Your task to perform on an android device: install app "Google Calendar" Image 0: 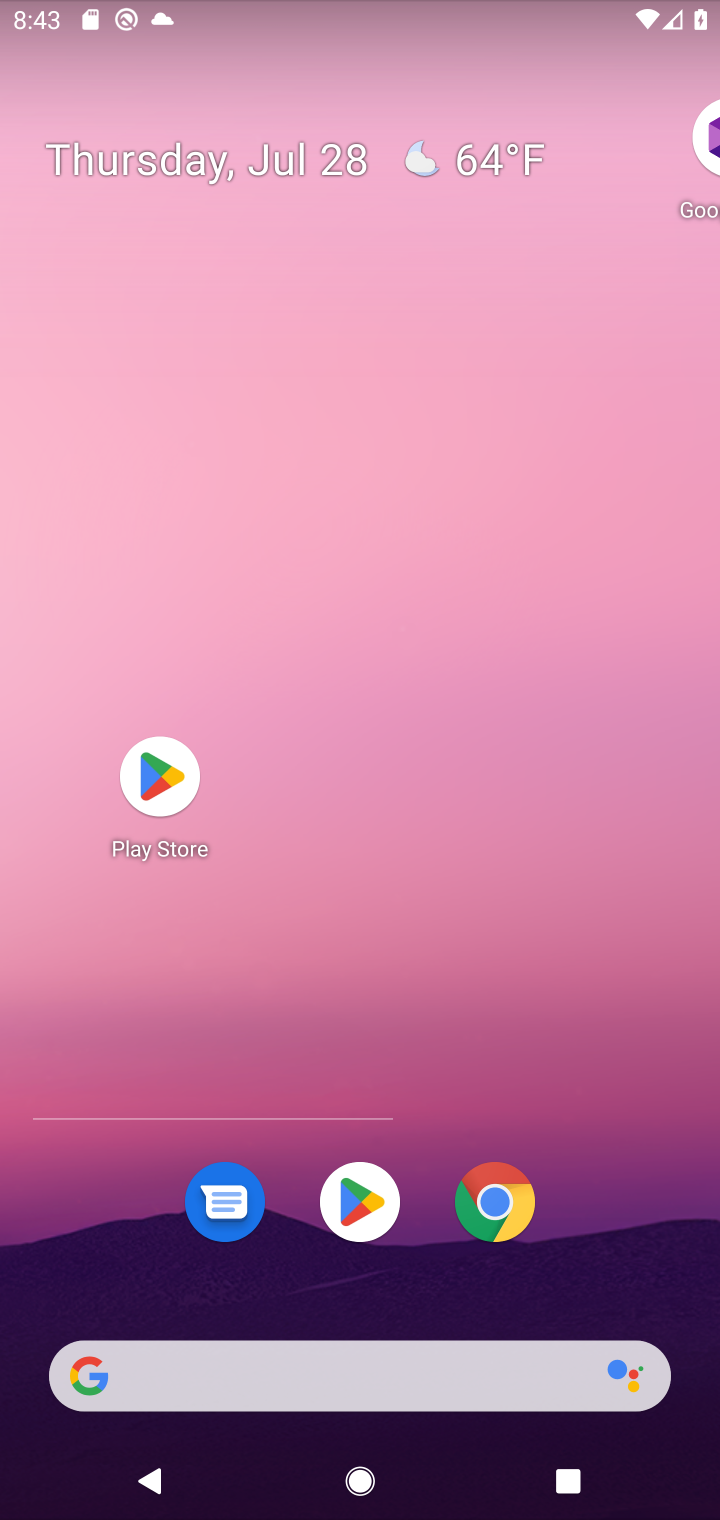
Step 0: press home button
Your task to perform on an android device: install app "Google Calendar" Image 1: 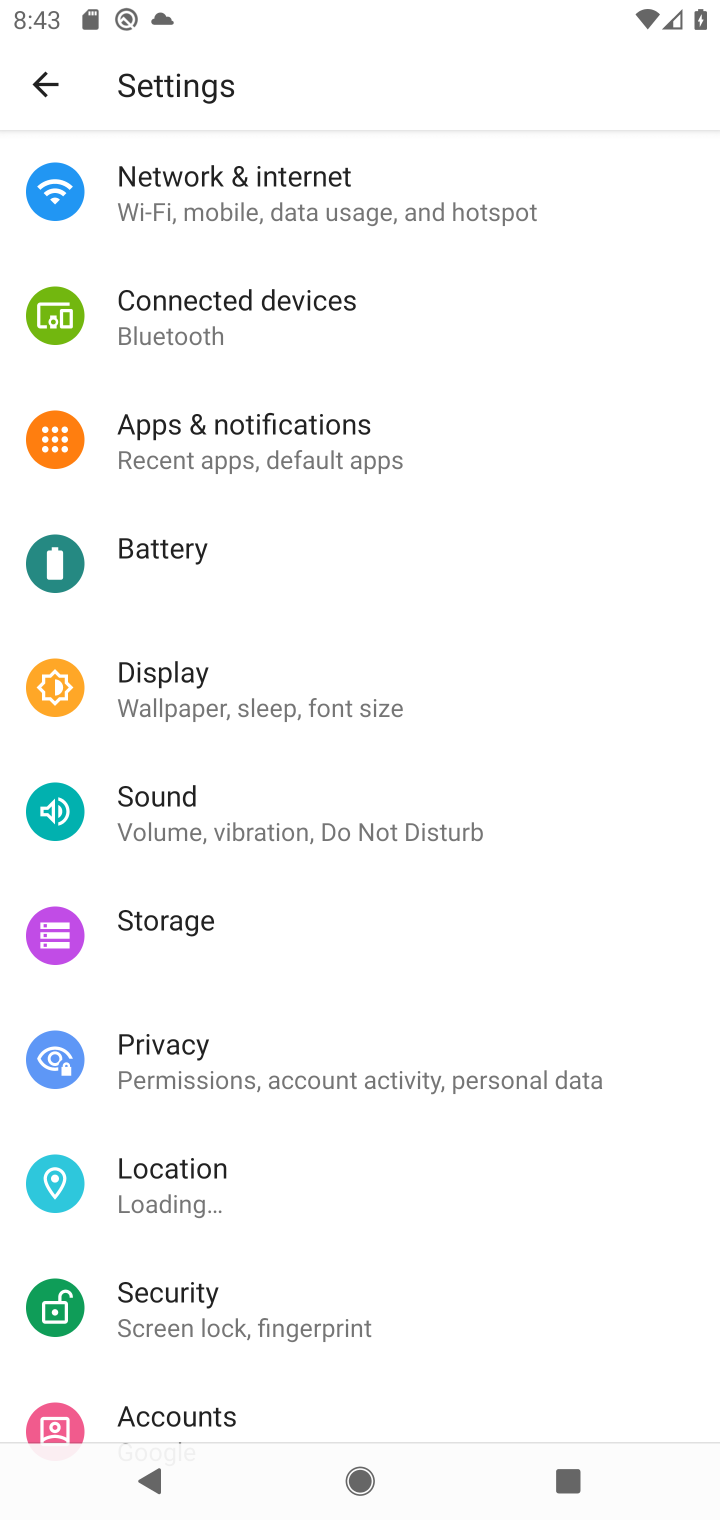
Step 1: click (357, 1198)
Your task to perform on an android device: install app "Google Calendar" Image 2: 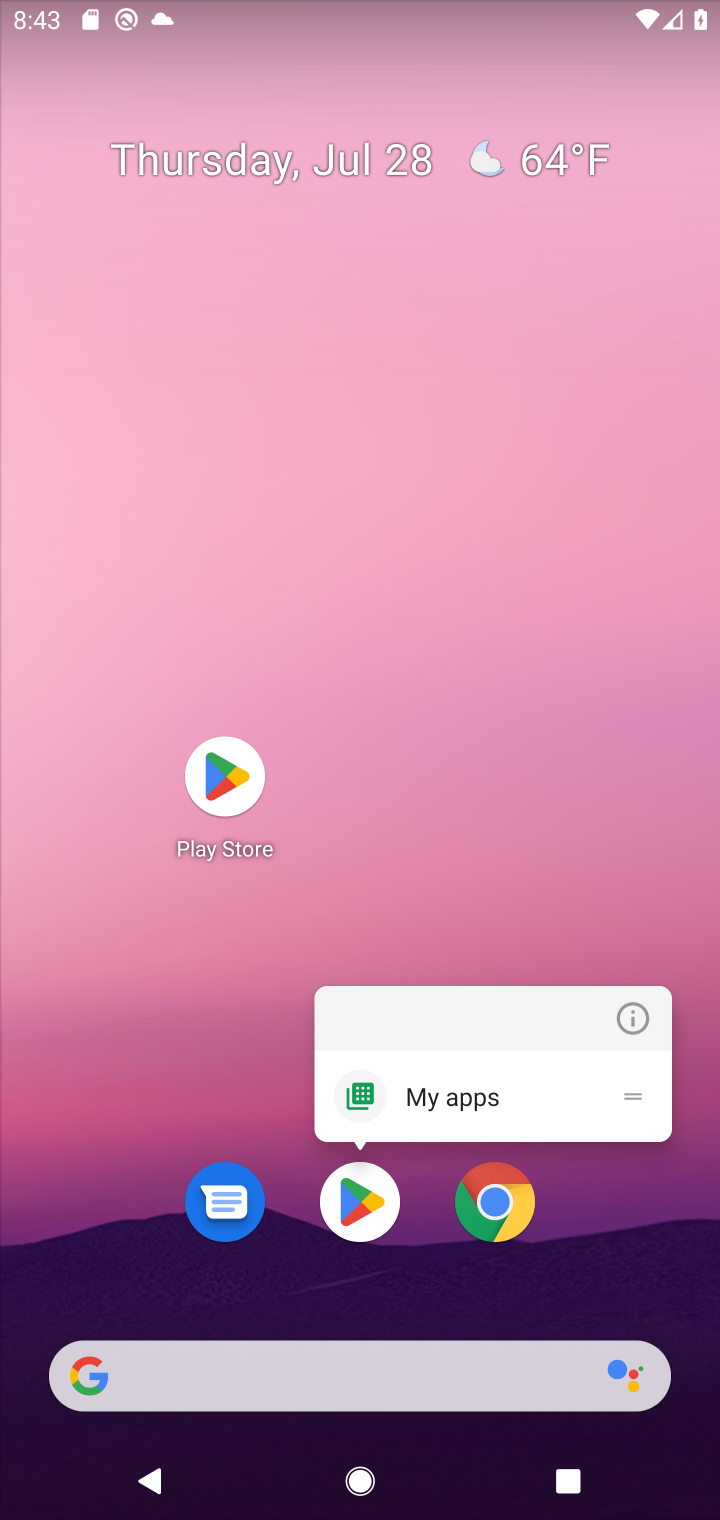
Step 2: click (359, 1222)
Your task to perform on an android device: install app "Google Calendar" Image 3: 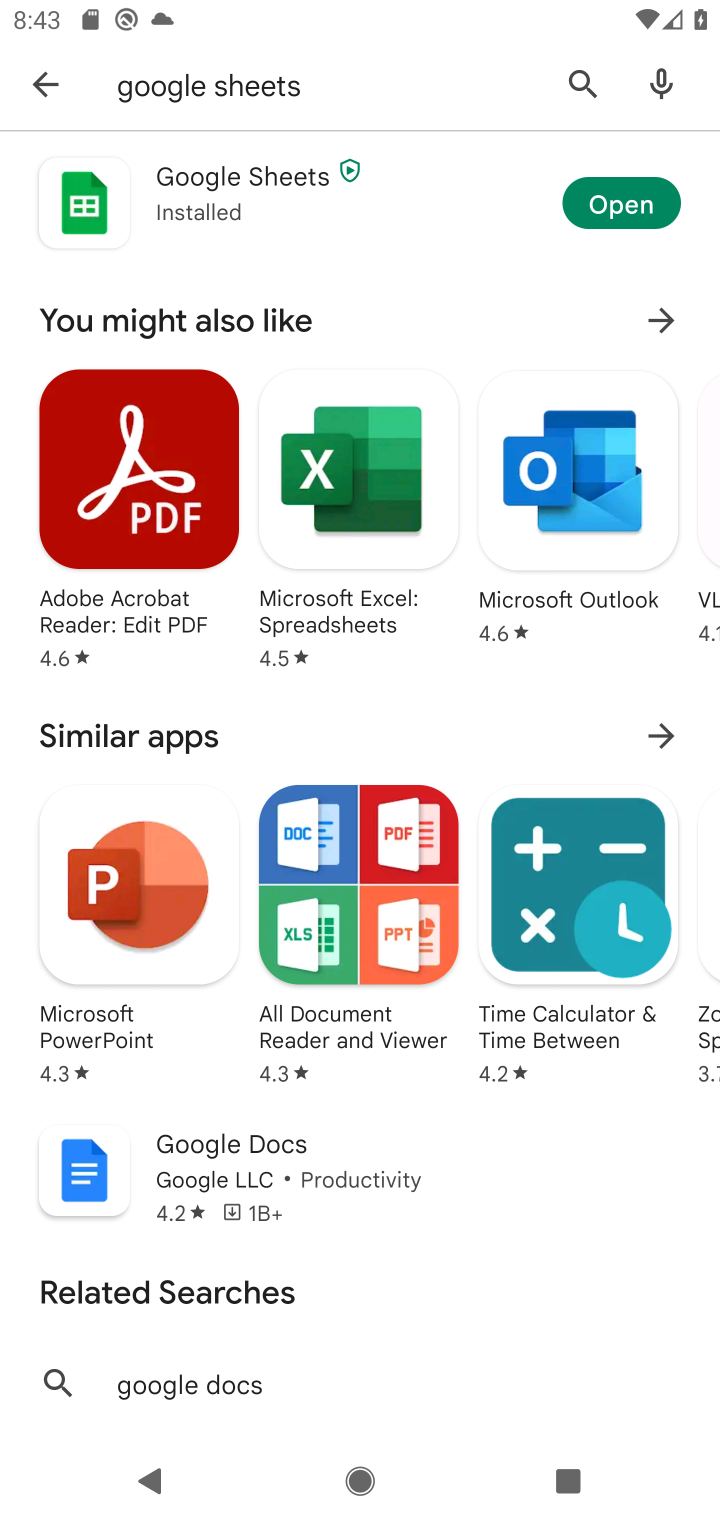
Step 3: click (574, 72)
Your task to perform on an android device: install app "Google Calendar" Image 4: 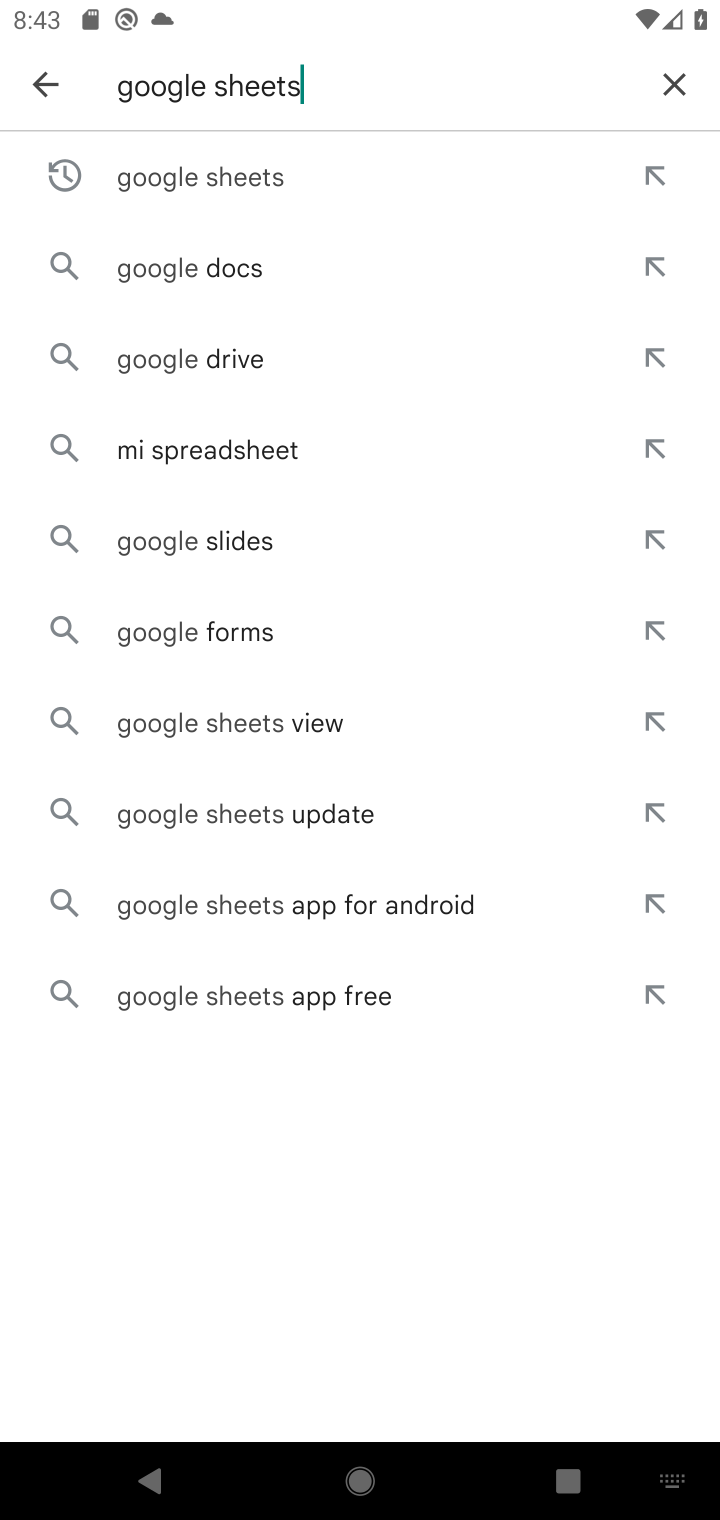
Step 4: click (676, 84)
Your task to perform on an android device: install app "Google Calendar" Image 5: 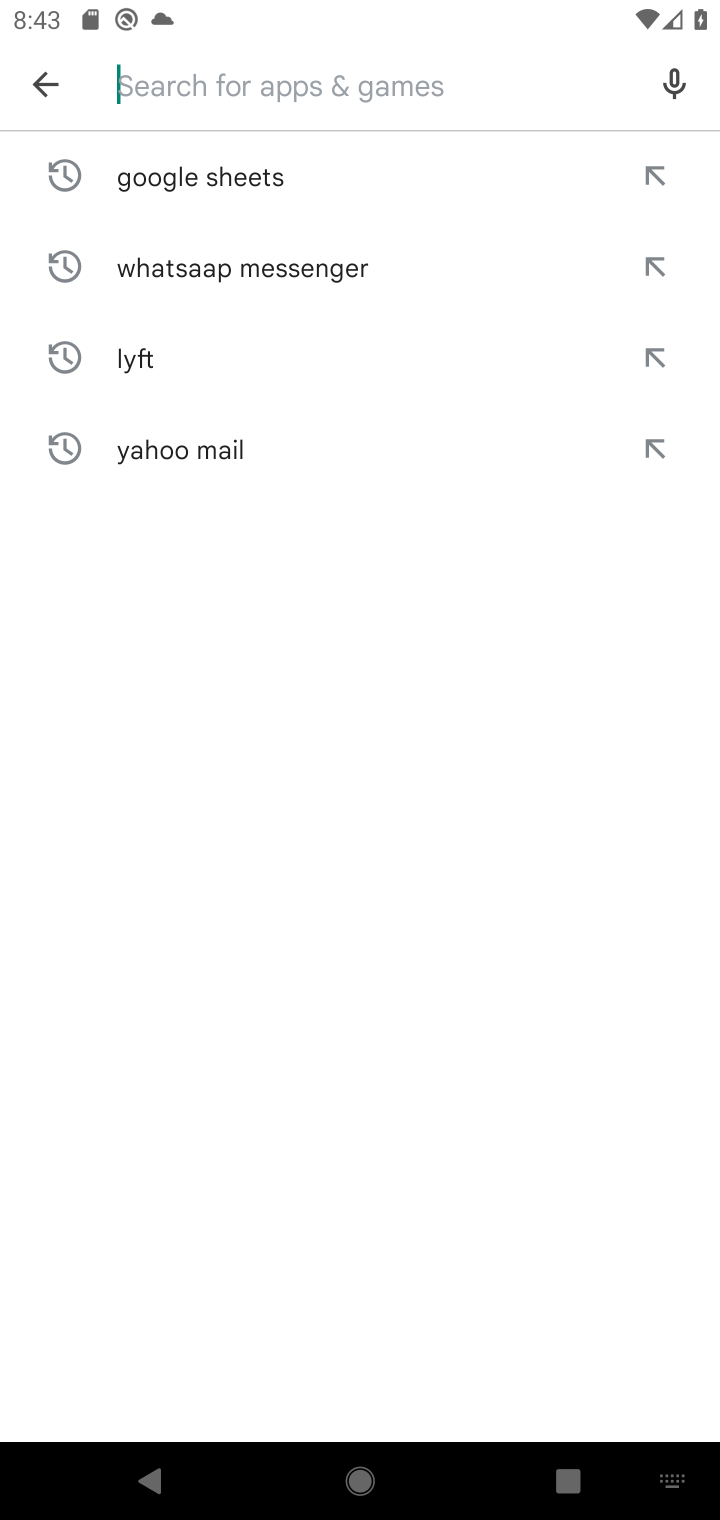
Step 5: type "google calendar"
Your task to perform on an android device: install app "Google Calendar" Image 6: 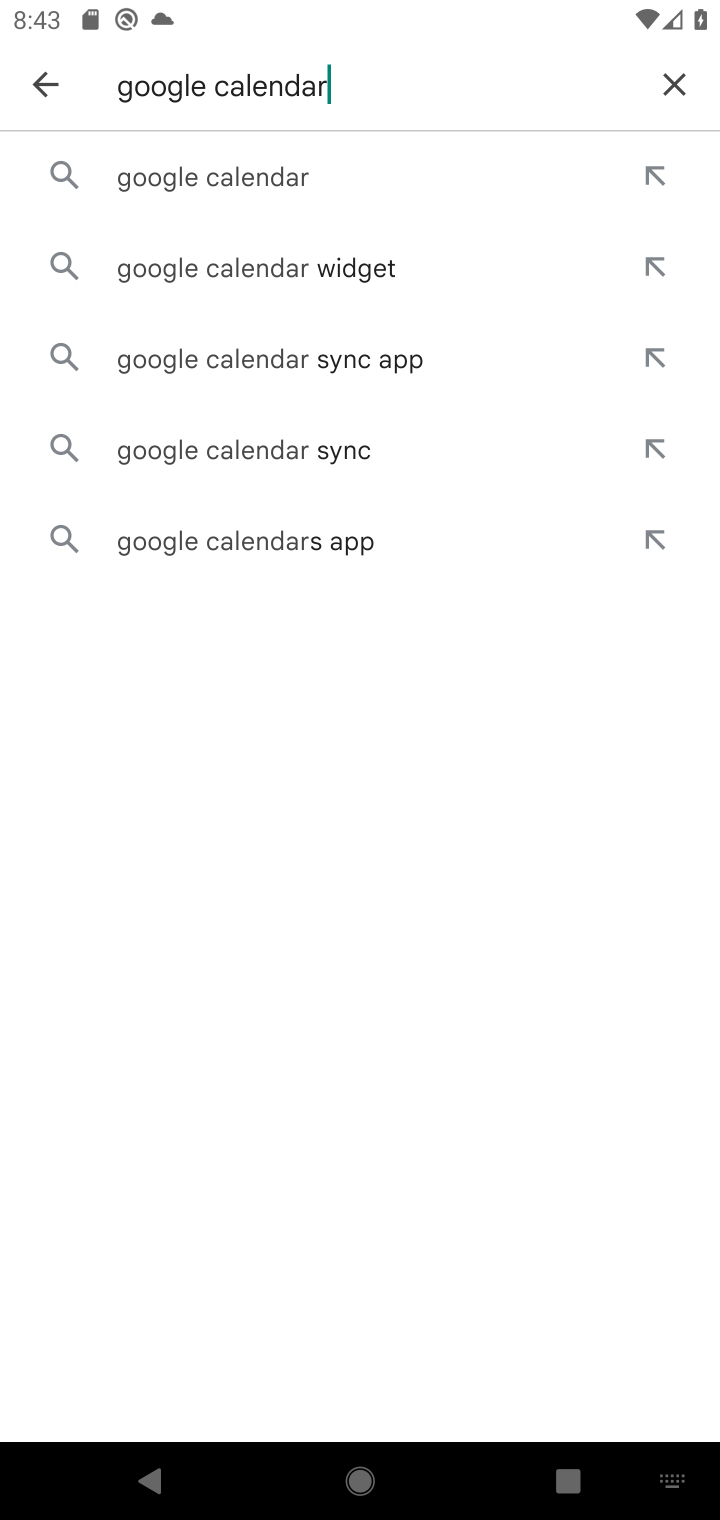
Step 6: click (258, 181)
Your task to perform on an android device: install app "Google Calendar" Image 7: 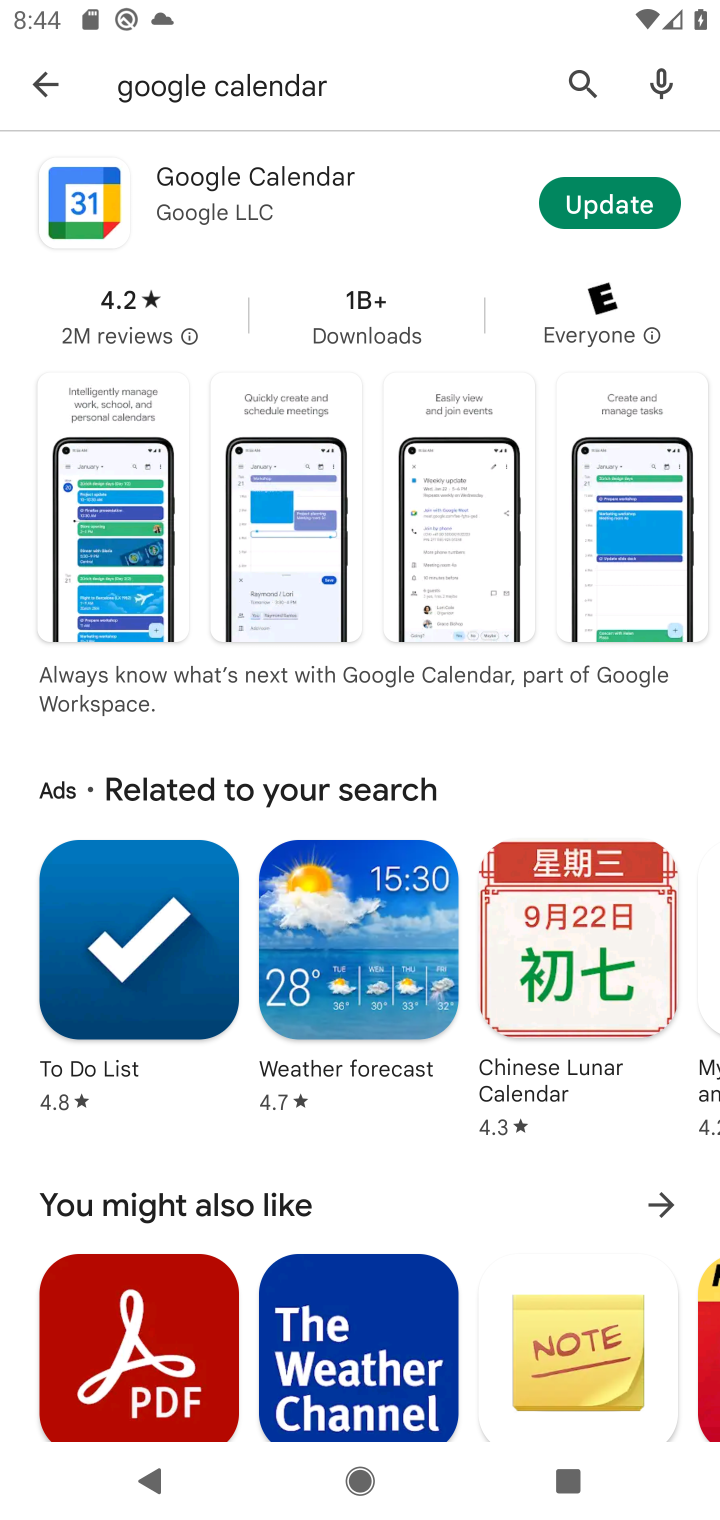
Step 7: task complete